Your task to perform on an android device: What's the weather going to be this weekend? Image 0: 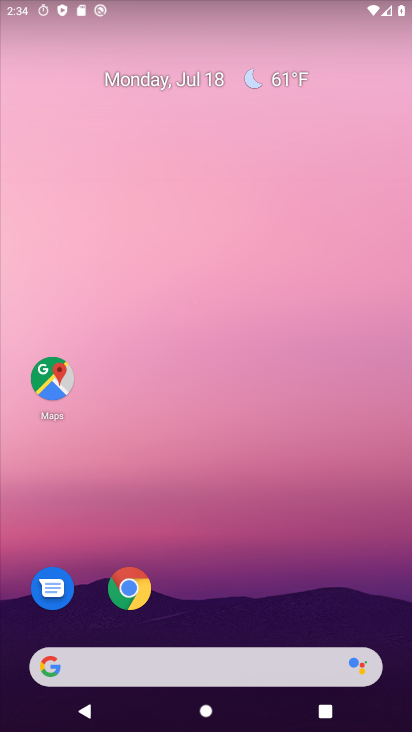
Step 0: drag from (272, 397) to (10, 20)
Your task to perform on an android device: What's the weather going to be this weekend? Image 1: 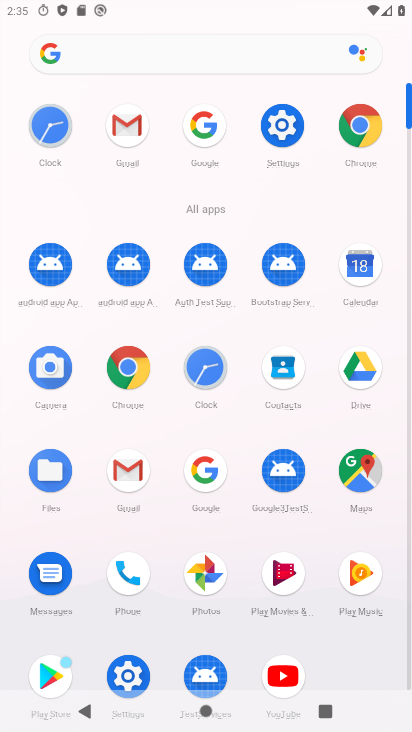
Step 1: click (210, 471)
Your task to perform on an android device: What's the weather going to be this weekend? Image 2: 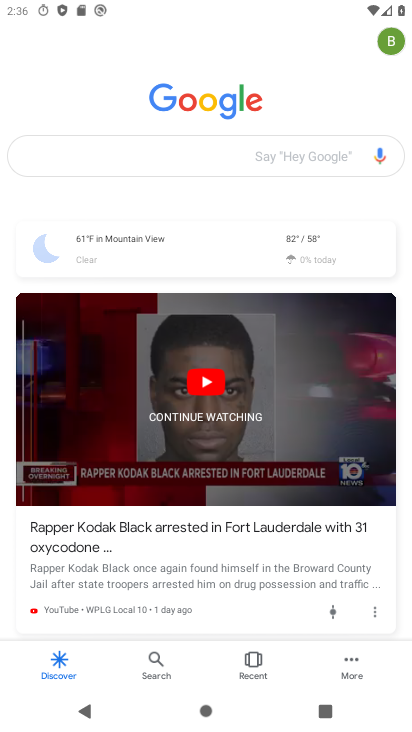
Step 2: click (274, 245)
Your task to perform on an android device: What's the weather going to be this weekend? Image 3: 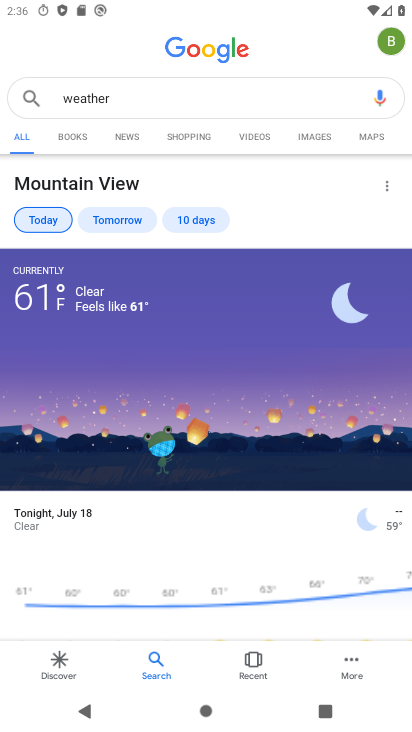
Step 3: task complete